Your task to perform on an android device: Go to display settings Image 0: 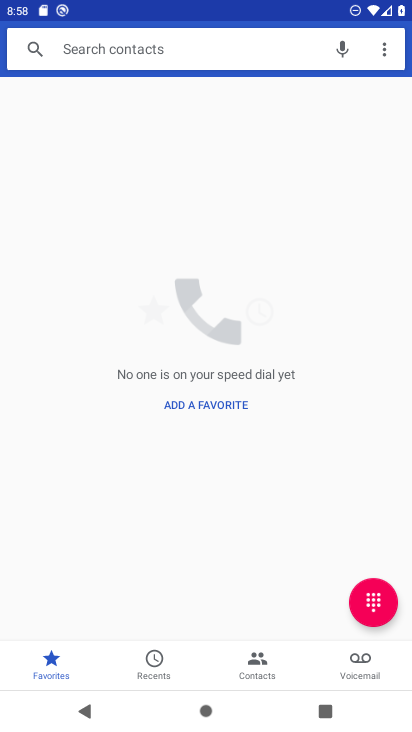
Step 0: press home button
Your task to perform on an android device: Go to display settings Image 1: 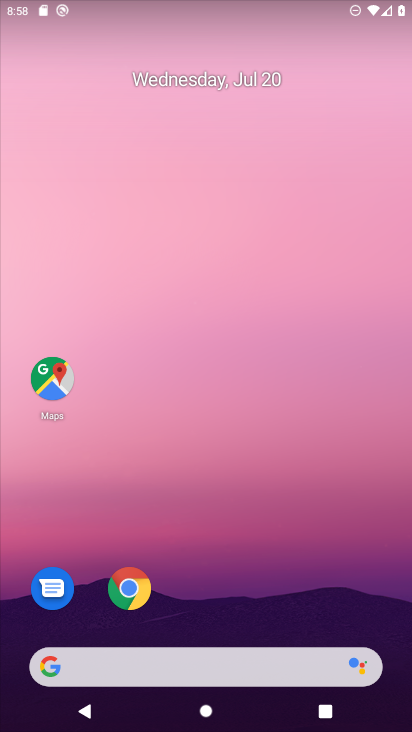
Step 1: drag from (191, 628) to (223, 84)
Your task to perform on an android device: Go to display settings Image 2: 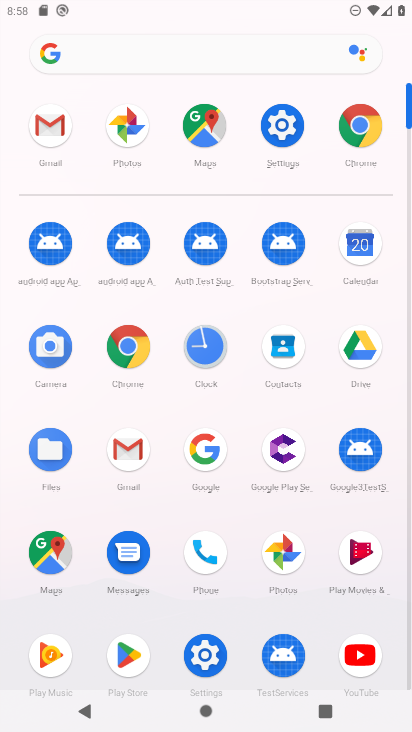
Step 2: click (288, 132)
Your task to perform on an android device: Go to display settings Image 3: 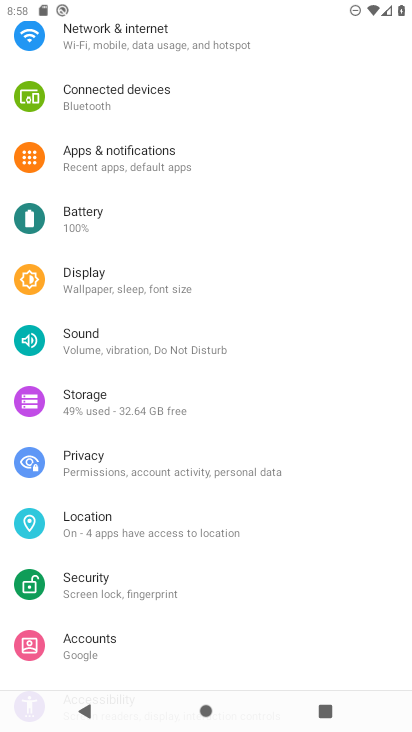
Step 3: click (122, 294)
Your task to perform on an android device: Go to display settings Image 4: 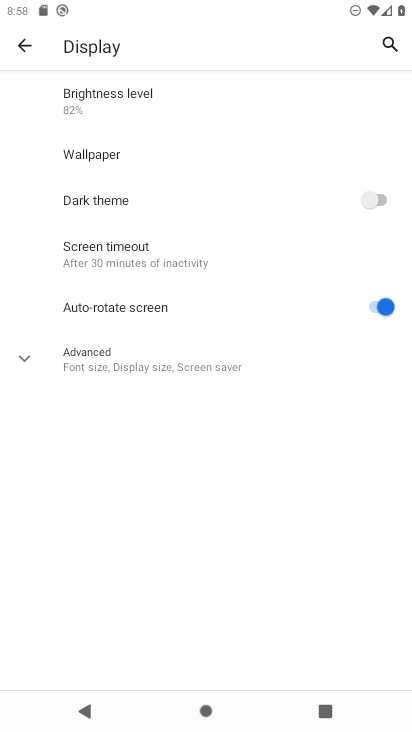
Step 4: task complete